Your task to perform on an android device: Go to calendar. Show me events next week Image 0: 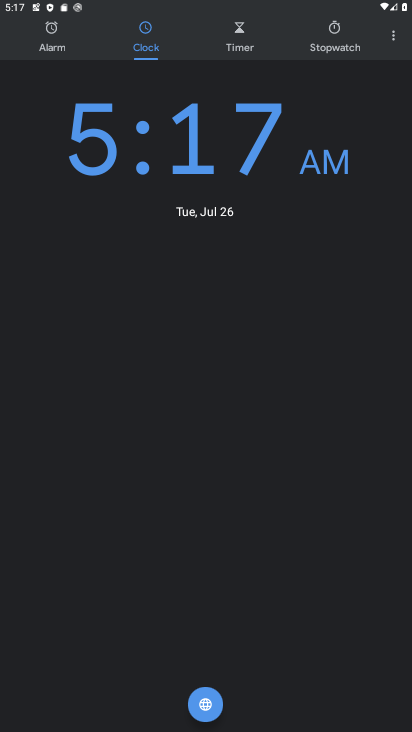
Step 0: press home button
Your task to perform on an android device: Go to calendar. Show me events next week Image 1: 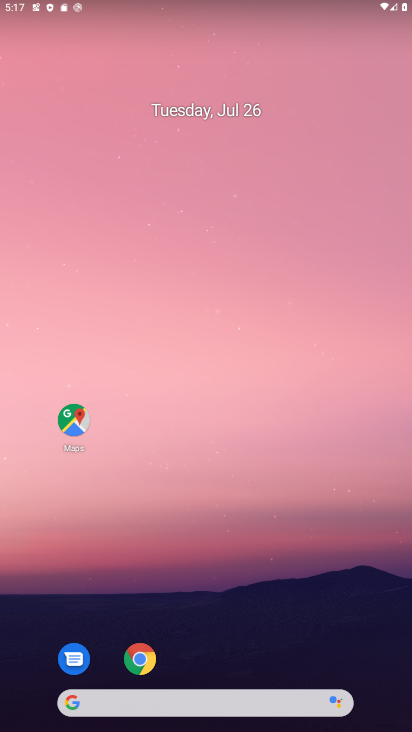
Step 1: drag from (278, 535) to (305, 12)
Your task to perform on an android device: Go to calendar. Show me events next week Image 2: 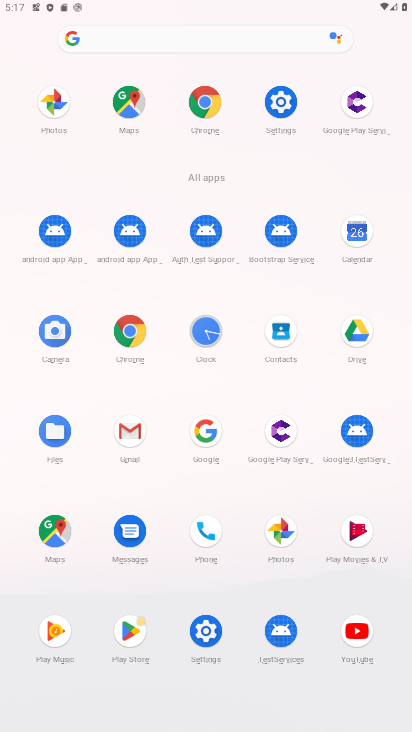
Step 2: click (352, 247)
Your task to perform on an android device: Go to calendar. Show me events next week Image 3: 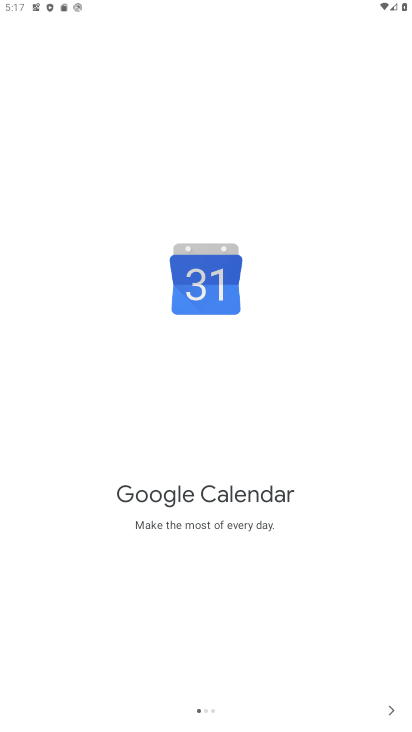
Step 3: click (390, 707)
Your task to perform on an android device: Go to calendar. Show me events next week Image 4: 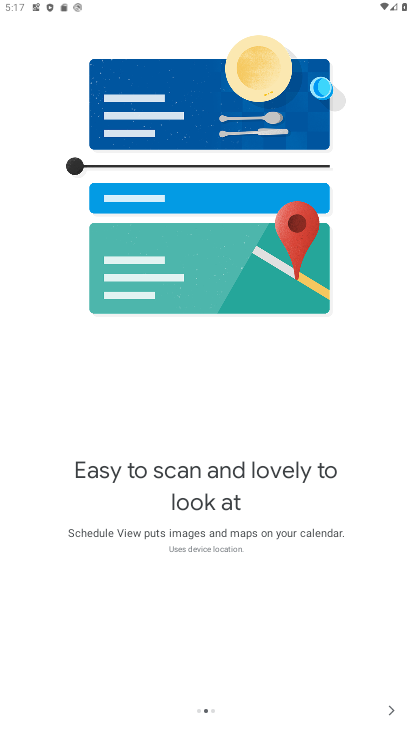
Step 4: click (390, 707)
Your task to perform on an android device: Go to calendar. Show me events next week Image 5: 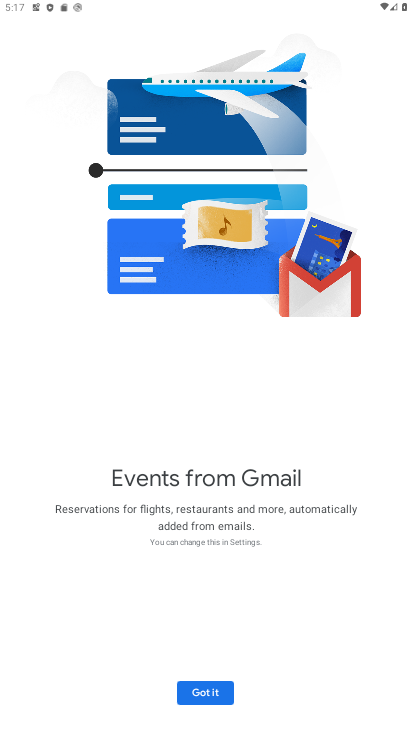
Step 5: click (390, 707)
Your task to perform on an android device: Go to calendar. Show me events next week Image 6: 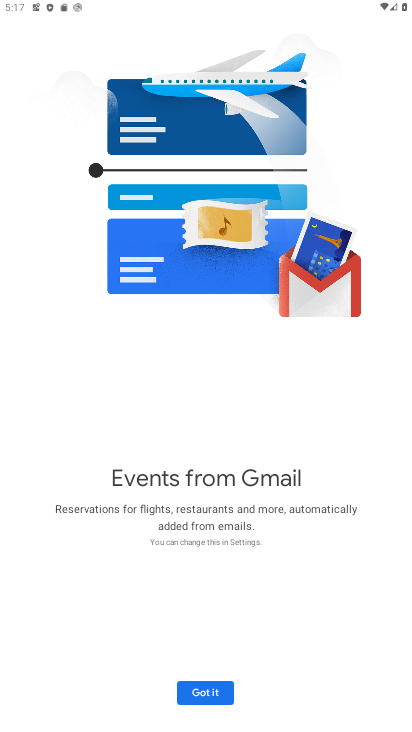
Step 6: click (226, 693)
Your task to perform on an android device: Go to calendar. Show me events next week Image 7: 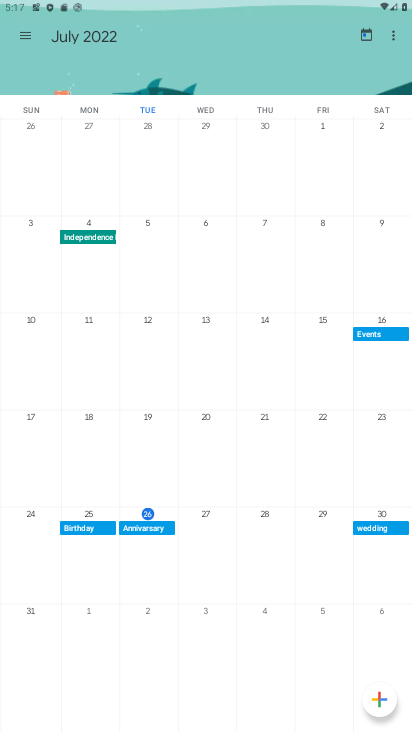
Step 7: task complete